Your task to perform on an android device: refresh tabs in the chrome app Image 0: 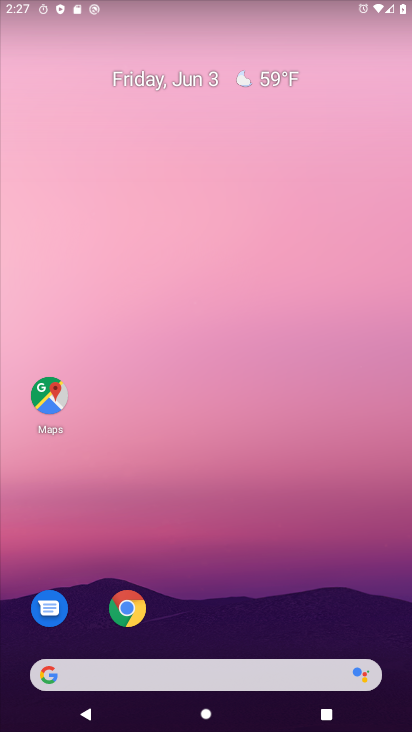
Step 0: click (139, 625)
Your task to perform on an android device: refresh tabs in the chrome app Image 1: 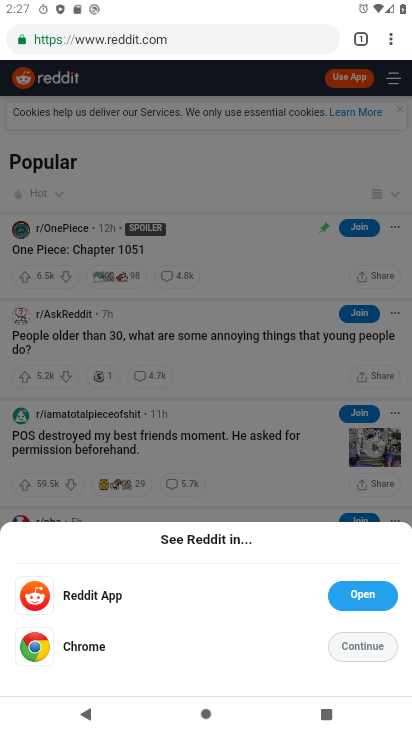
Step 1: click (369, 641)
Your task to perform on an android device: refresh tabs in the chrome app Image 2: 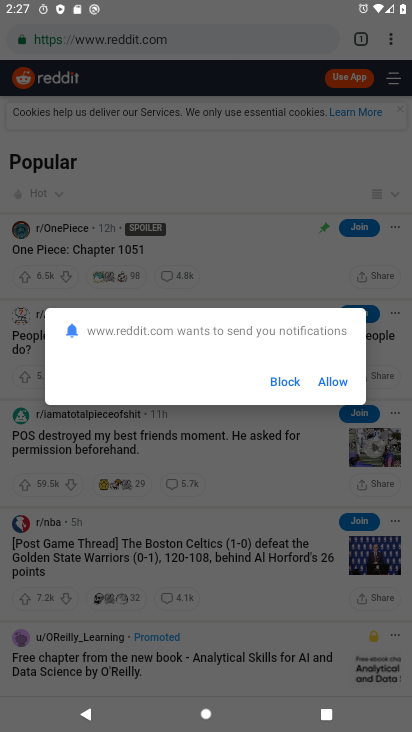
Step 2: click (386, 43)
Your task to perform on an android device: refresh tabs in the chrome app Image 3: 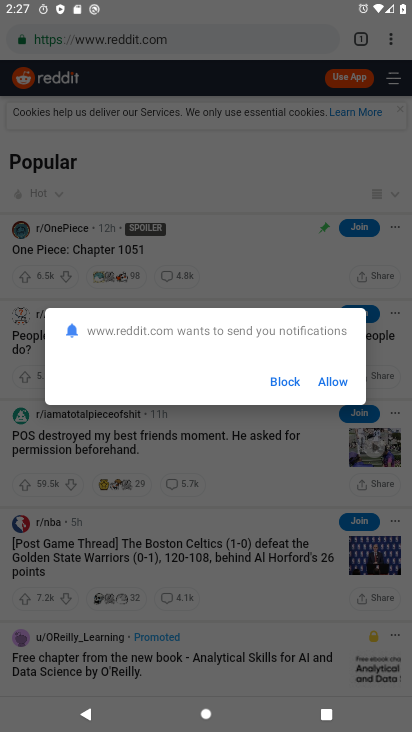
Step 3: click (324, 373)
Your task to perform on an android device: refresh tabs in the chrome app Image 4: 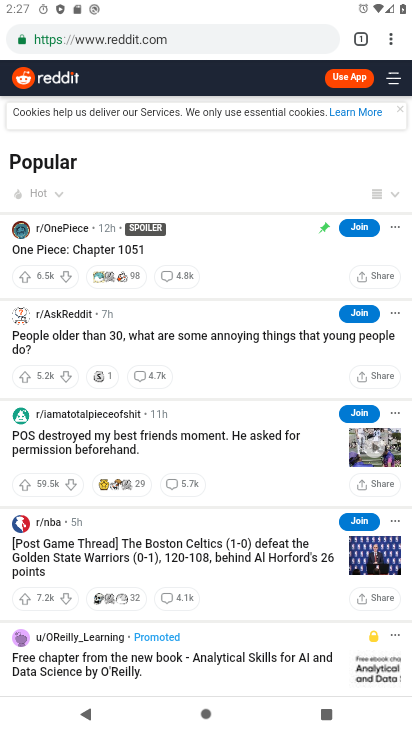
Step 4: click (388, 48)
Your task to perform on an android device: refresh tabs in the chrome app Image 5: 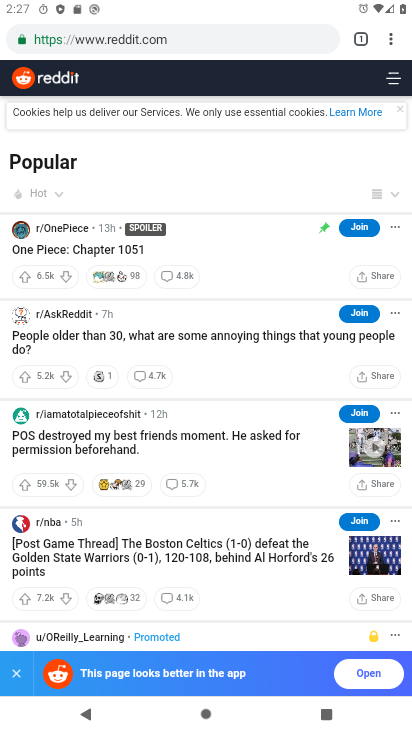
Step 5: task complete